Your task to perform on an android device: turn off notifications settings in the gmail app Image 0: 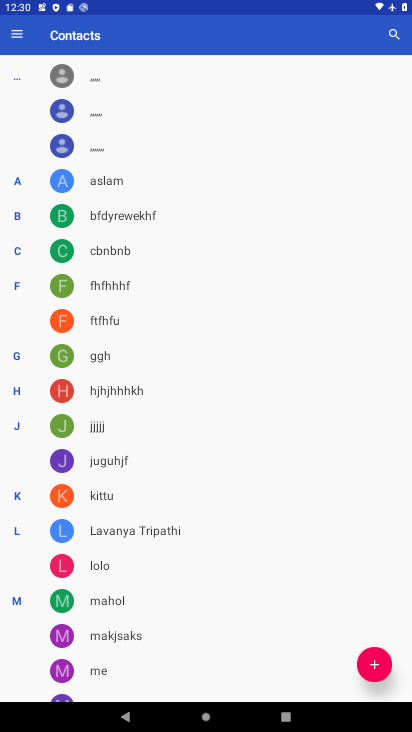
Step 0: task complete